Your task to perform on an android device: turn on showing notifications on the lock screen Image 0: 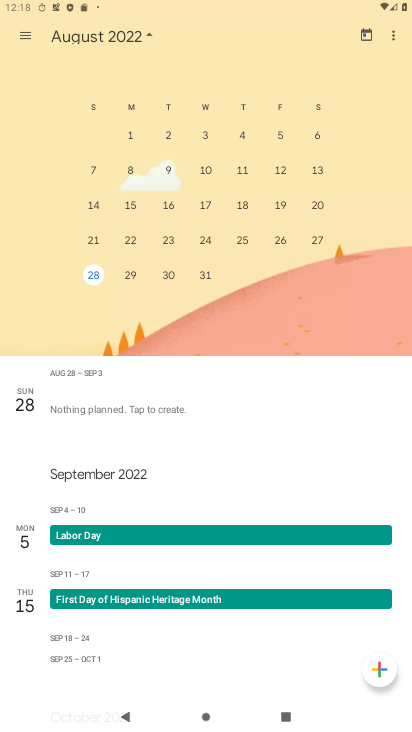
Step 0: press home button
Your task to perform on an android device: turn on showing notifications on the lock screen Image 1: 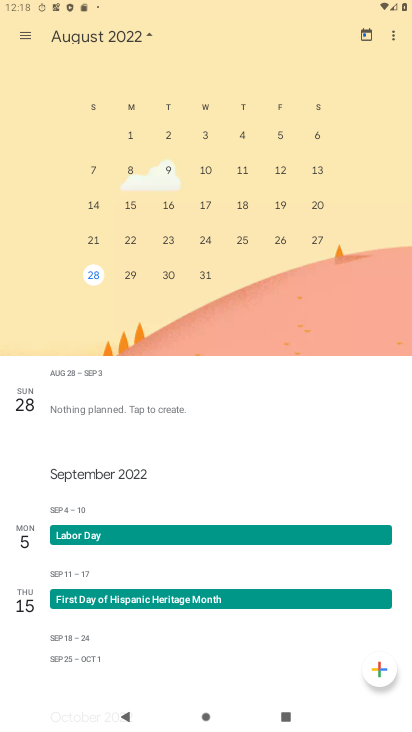
Step 1: drag from (372, 636) to (185, 4)
Your task to perform on an android device: turn on showing notifications on the lock screen Image 2: 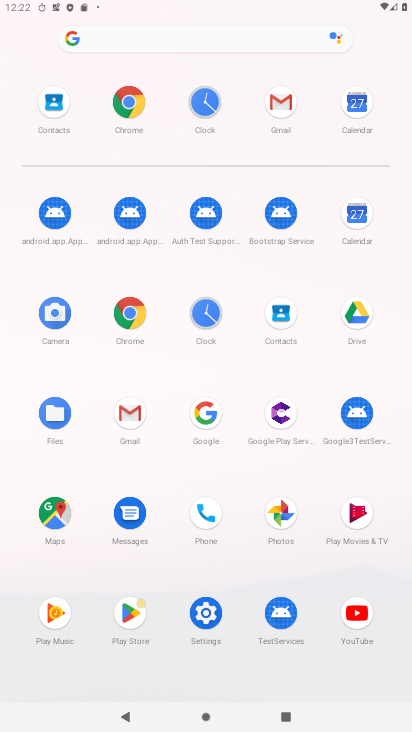
Step 2: click (205, 617)
Your task to perform on an android device: turn on showing notifications on the lock screen Image 3: 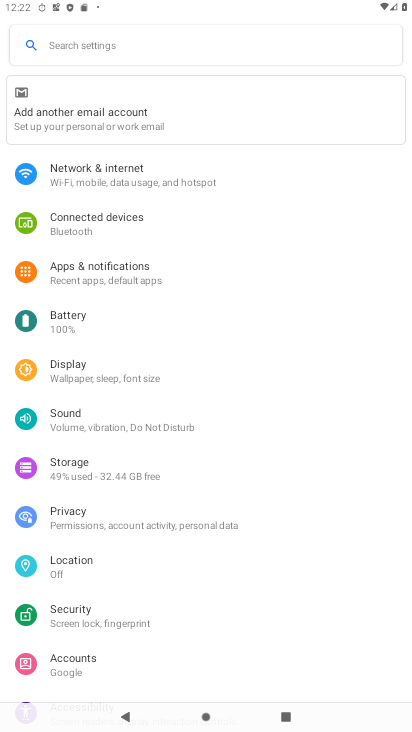
Step 3: task complete